Your task to perform on an android device: Open battery settings Image 0: 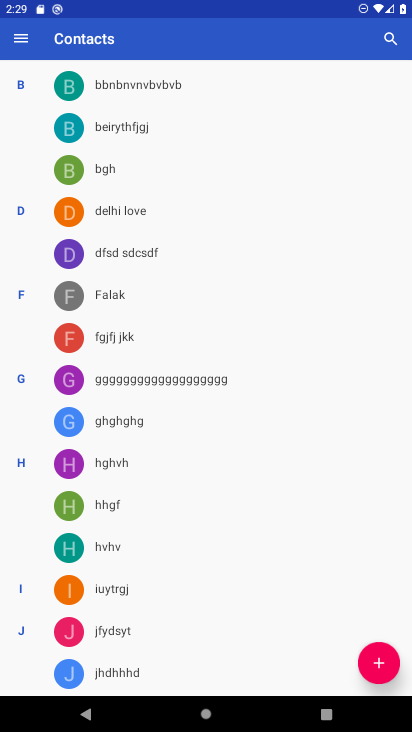
Step 0: press home button
Your task to perform on an android device: Open battery settings Image 1: 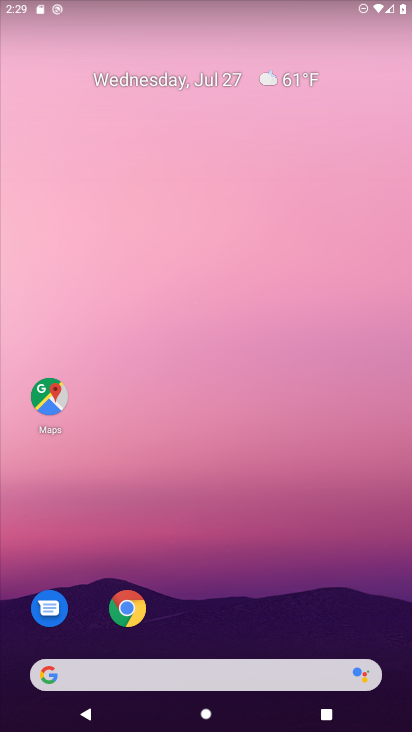
Step 1: drag from (160, 319) to (177, 134)
Your task to perform on an android device: Open battery settings Image 2: 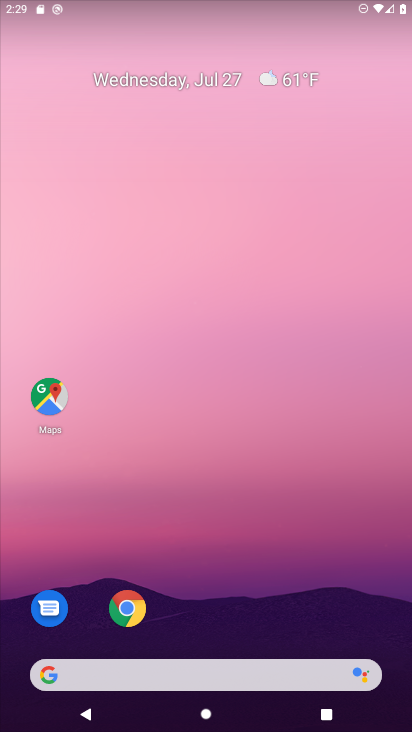
Step 2: drag from (223, 616) to (162, 3)
Your task to perform on an android device: Open battery settings Image 3: 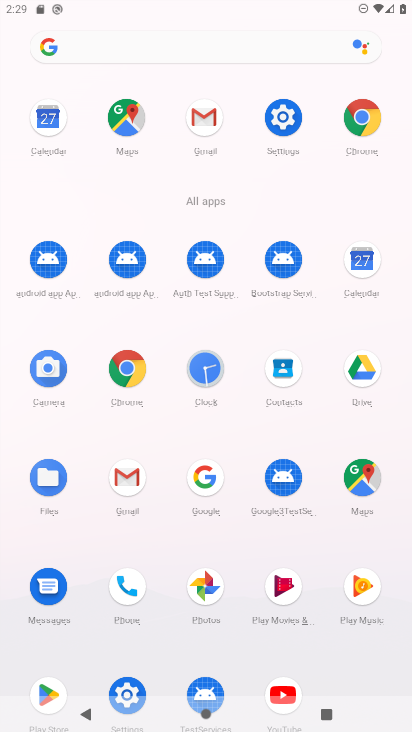
Step 3: click (271, 124)
Your task to perform on an android device: Open battery settings Image 4: 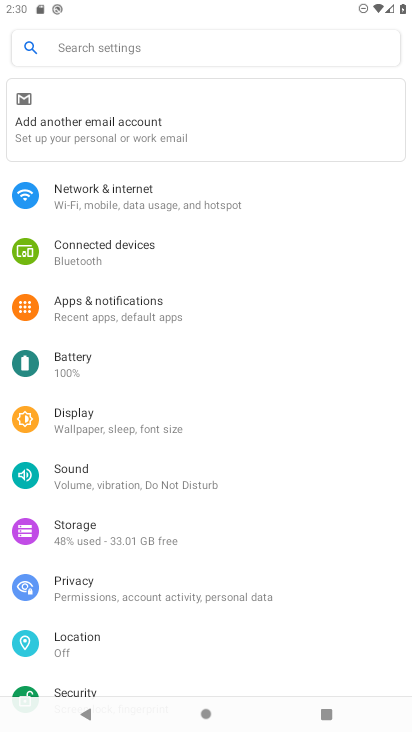
Step 4: click (75, 375)
Your task to perform on an android device: Open battery settings Image 5: 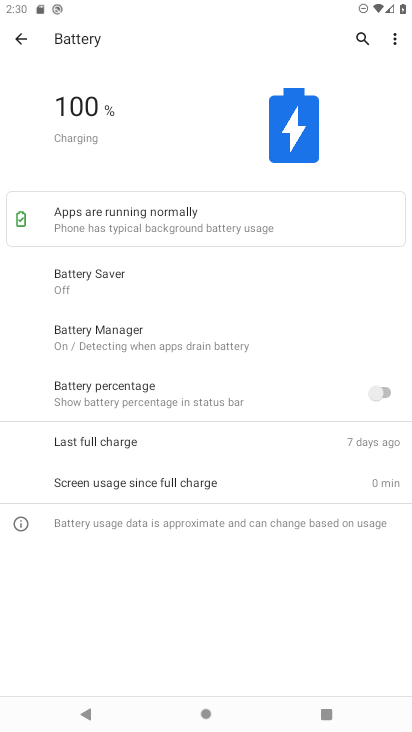
Step 5: task complete